Your task to perform on an android device: empty trash in the gmail app Image 0: 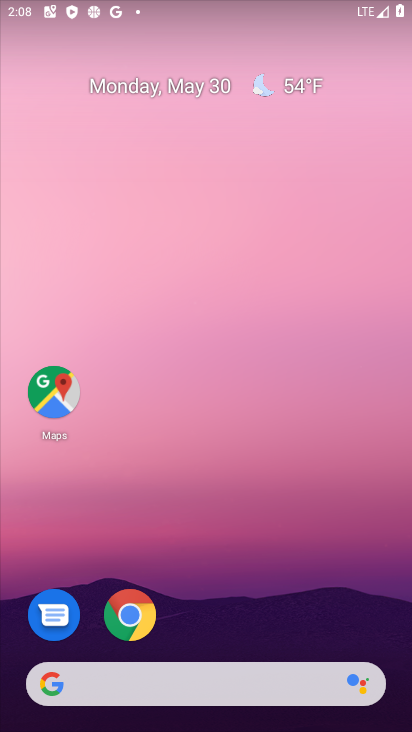
Step 0: drag from (314, 624) to (251, 104)
Your task to perform on an android device: empty trash in the gmail app Image 1: 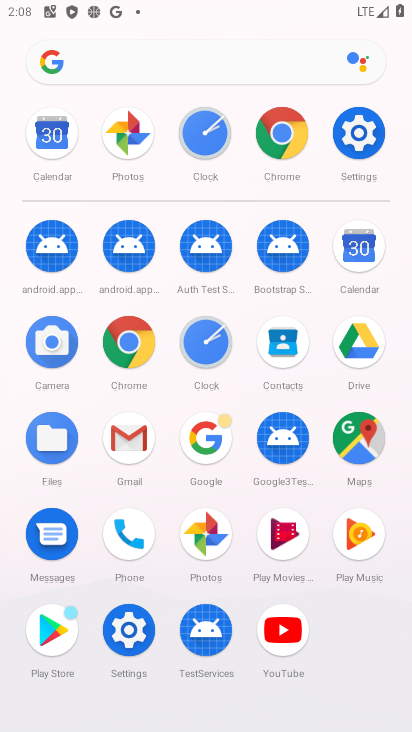
Step 1: click (123, 419)
Your task to perform on an android device: empty trash in the gmail app Image 2: 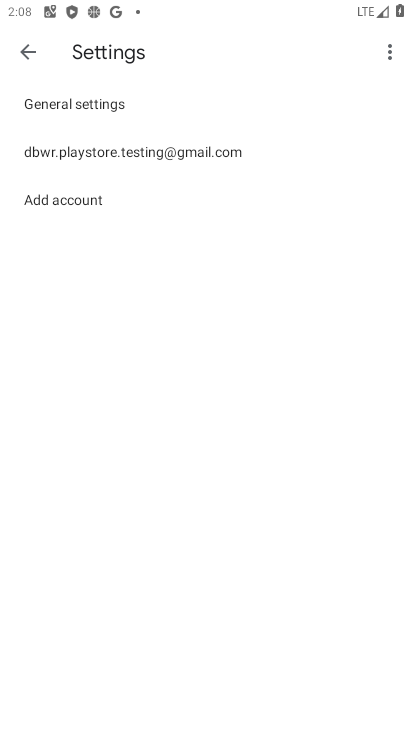
Step 2: click (34, 38)
Your task to perform on an android device: empty trash in the gmail app Image 3: 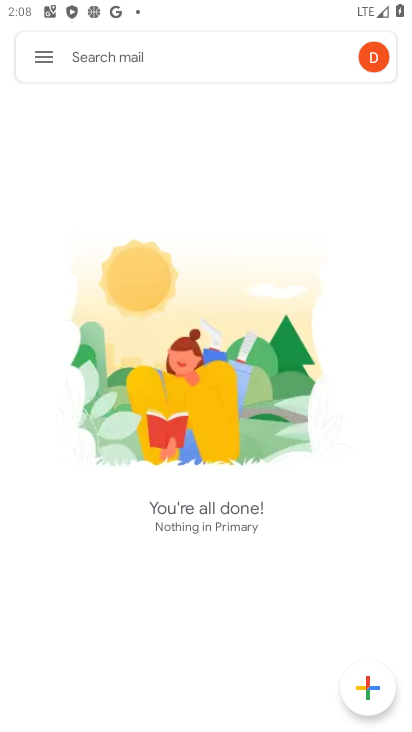
Step 3: click (31, 59)
Your task to perform on an android device: empty trash in the gmail app Image 4: 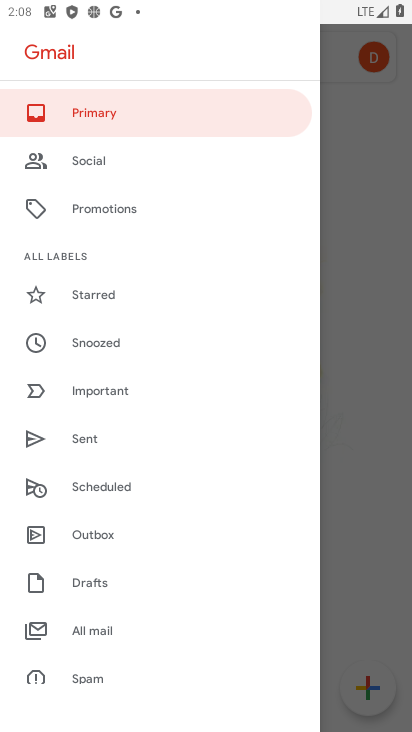
Step 4: drag from (117, 582) to (107, 441)
Your task to perform on an android device: empty trash in the gmail app Image 5: 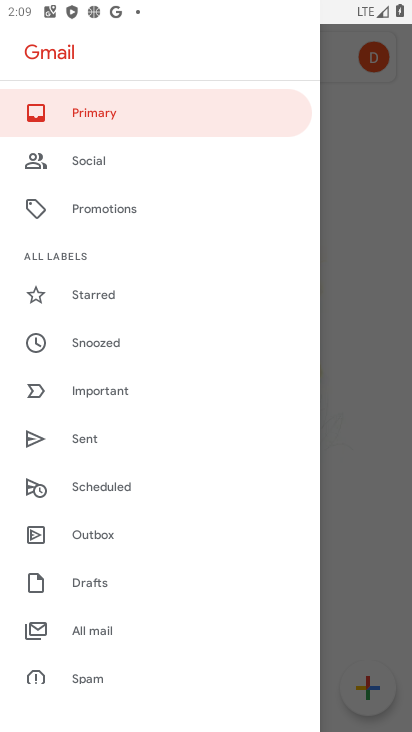
Step 5: drag from (237, 455) to (210, 284)
Your task to perform on an android device: empty trash in the gmail app Image 6: 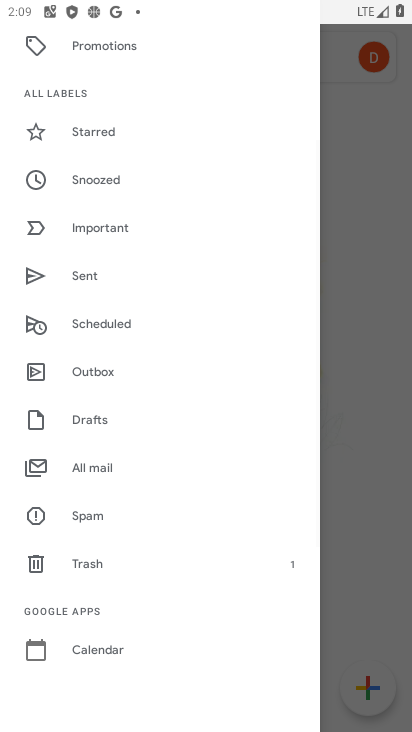
Step 6: drag from (178, 467) to (169, 376)
Your task to perform on an android device: empty trash in the gmail app Image 7: 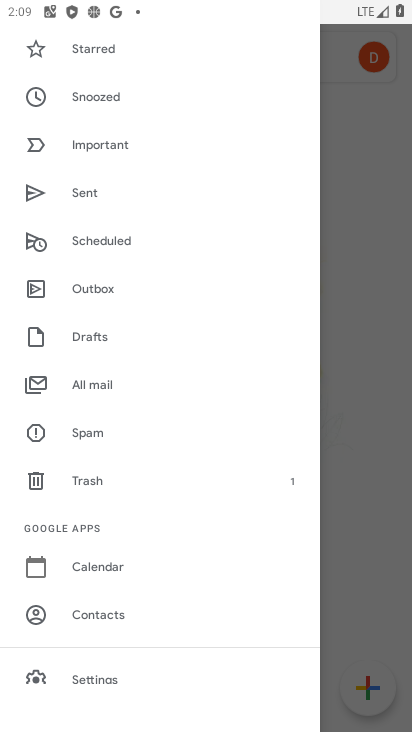
Step 7: click (95, 485)
Your task to perform on an android device: empty trash in the gmail app Image 8: 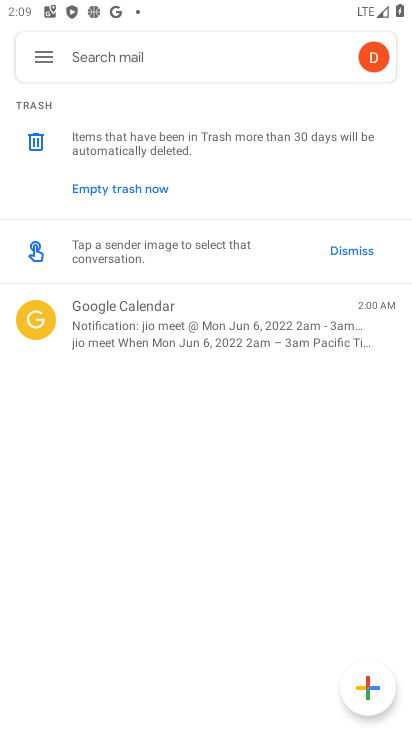
Step 8: click (119, 191)
Your task to perform on an android device: empty trash in the gmail app Image 9: 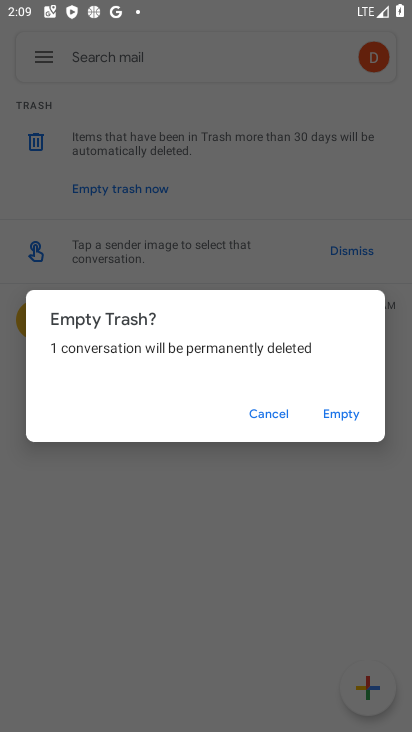
Step 9: click (346, 415)
Your task to perform on an android device: empty trash in the gmail app Image 10: 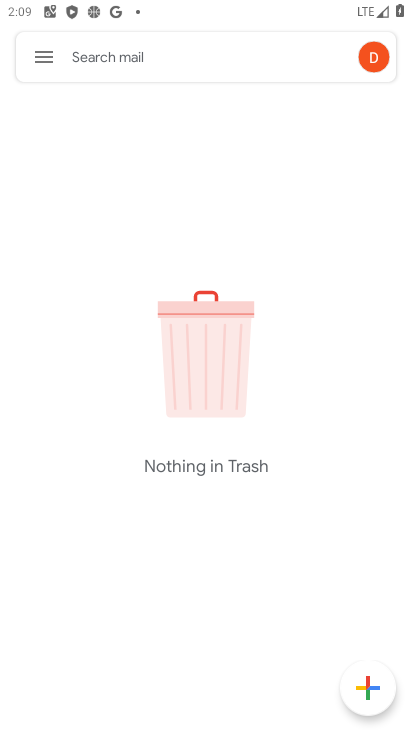
Step 10: task complete